Your task to perform on an android device: delete the emails in spam in the gmail app Image 0: 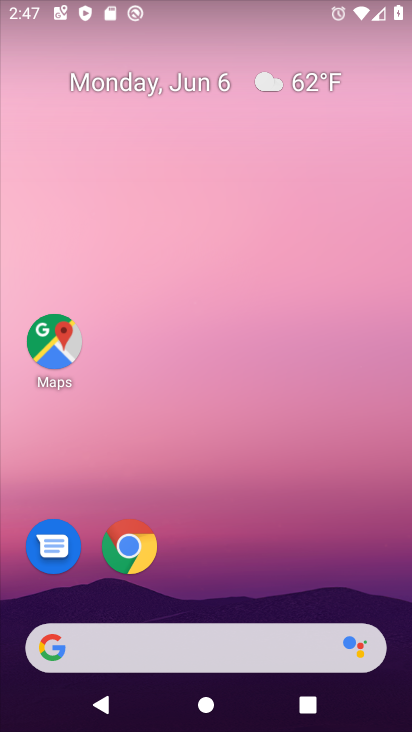
Step 0: drag from (204, 505) to (204, 166)
Your task to perform on an android device: delete the emails in spam in the gmail app Image 1: 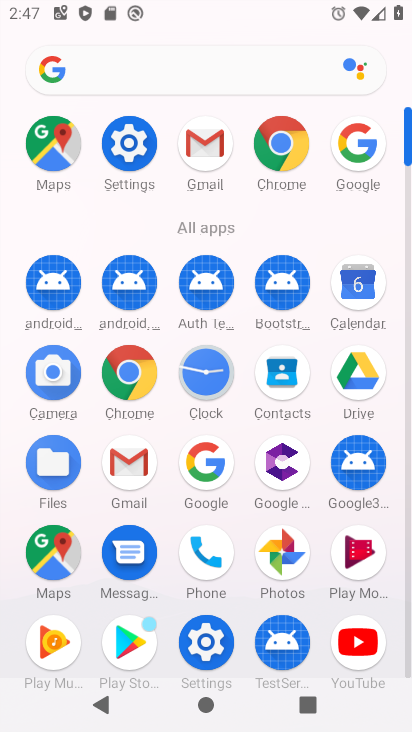
Step 1: click (204, 161)
Your task to perform on an android device: delete the emails in spam in the gmail app Image 2: 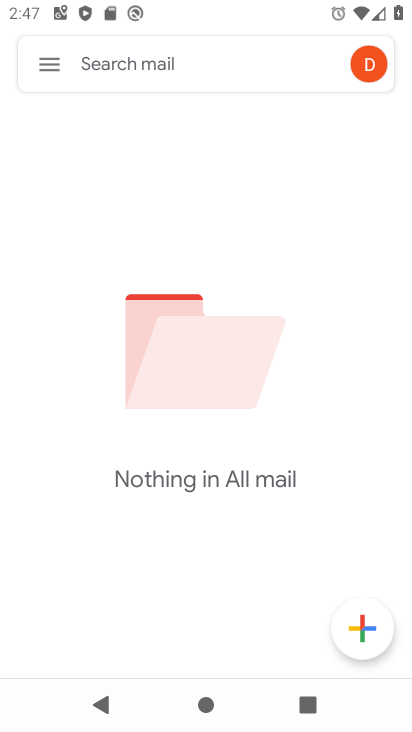
Step 2: click (42, 60)
Your task to perform on an android device: delete the emails in spam in the gmail app Image 3: 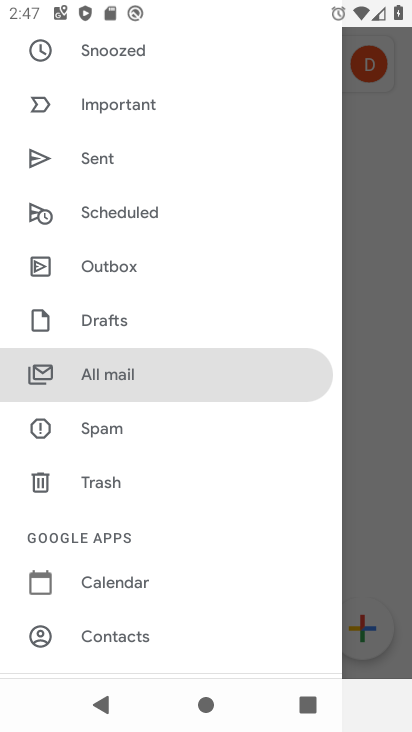
Step 3: drag from (154, 168) to (175, 460)
Your task to perform on an android device: delete the emails in spam in the gmail app Image 4: 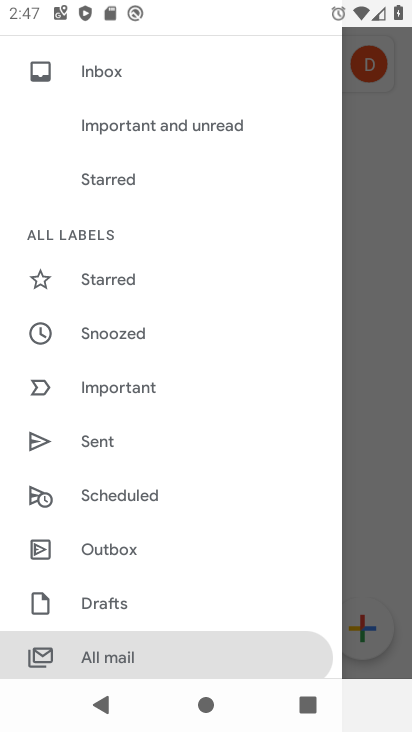
Step 4: drag from (200, 226) to (242, 229)
Your task to perform on an android device: delete the emails in spam in the gmail app Image 5: 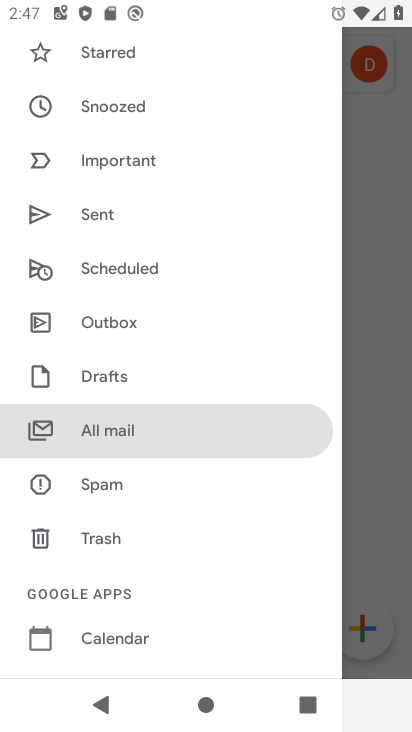
Step 5: click (98, 480)
Your task to perform on an android device: delete the emails in spam in the gmail app Image 6: 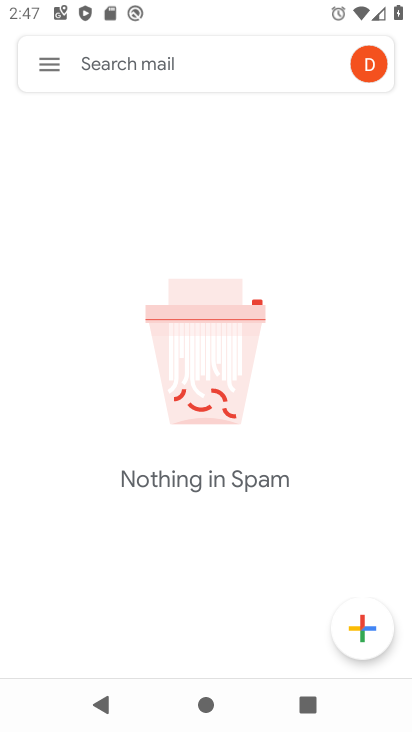
Step 6: task complete